Your task to perform on an android device: turn off sleep mode Image 0: 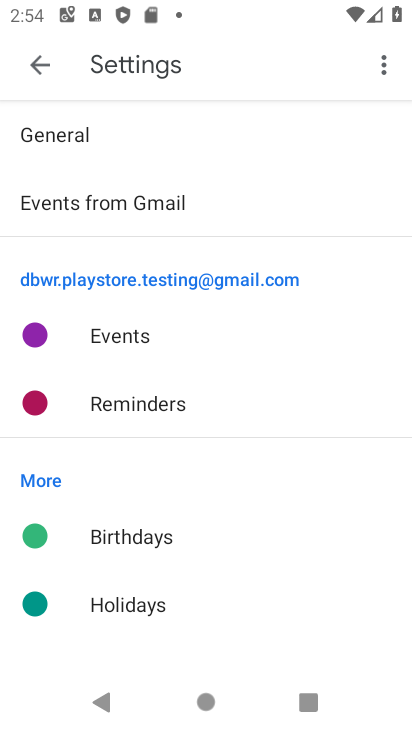
Step 0: press home button
Your task to perform on an android device: turn off sleep mode Image 1: 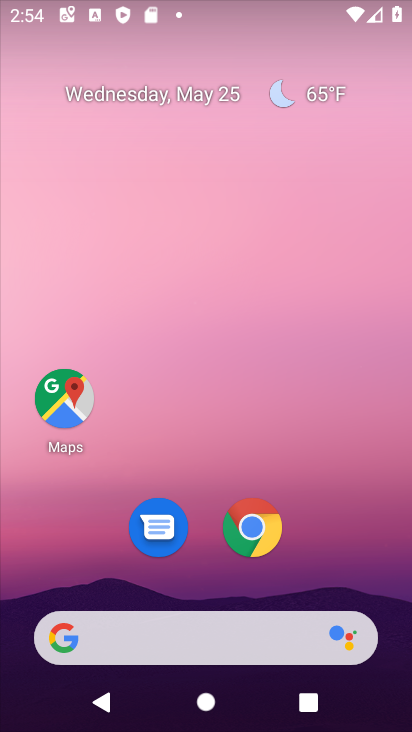
Step 1: drag from (305, 606) to (306, 5)
Your task to perform on an android device: turn off sleep mode Image 2: 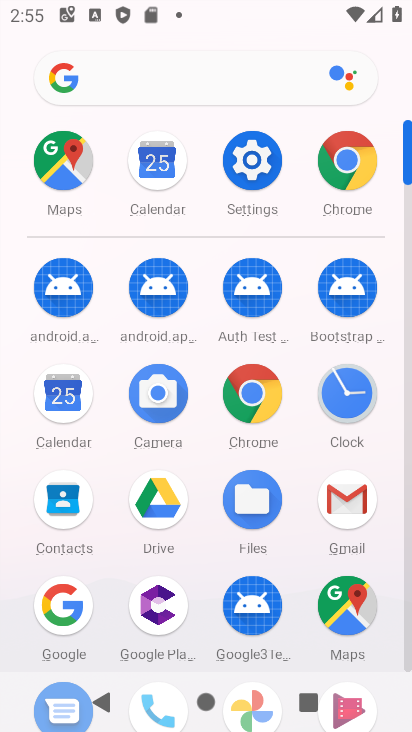
Step 2: click (247, 151)
Your task to perform on an android device: turn off sleep mode Image 3: 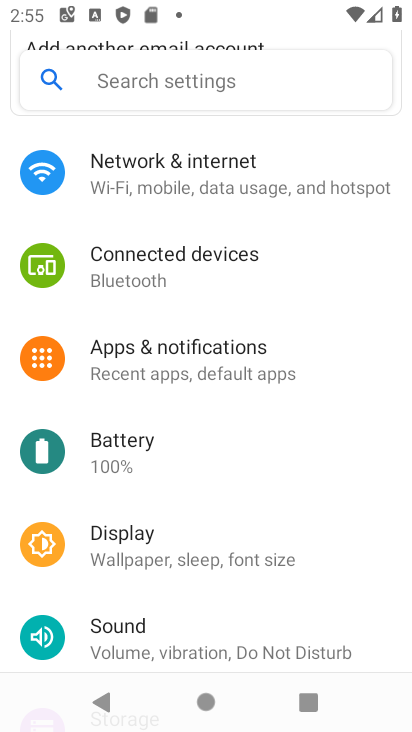
Step 3: click (188, 540)
Your task to perform on an android device: turn off sleep mode Image 4: 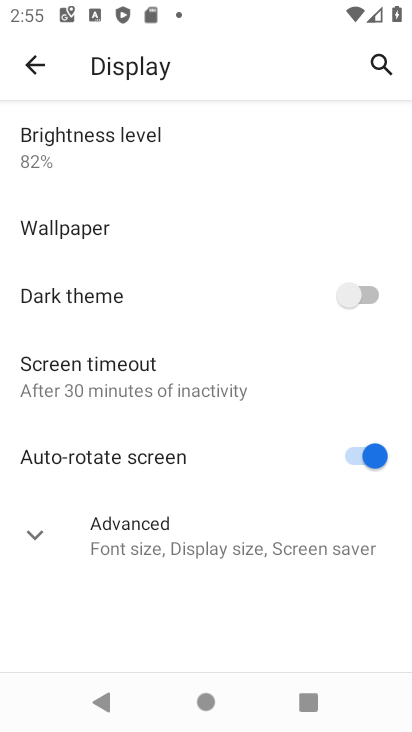
Step 4: task complete